Your task to perform on an android device: Turn on the flashlight Image 0: 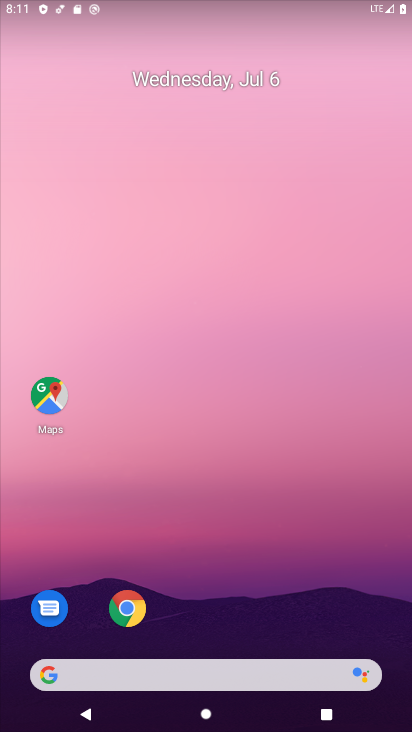
Step 0: drag from (376, 637) to (316, 35)
Your task to perform on an android device: Turn on the flashlight Image 1: 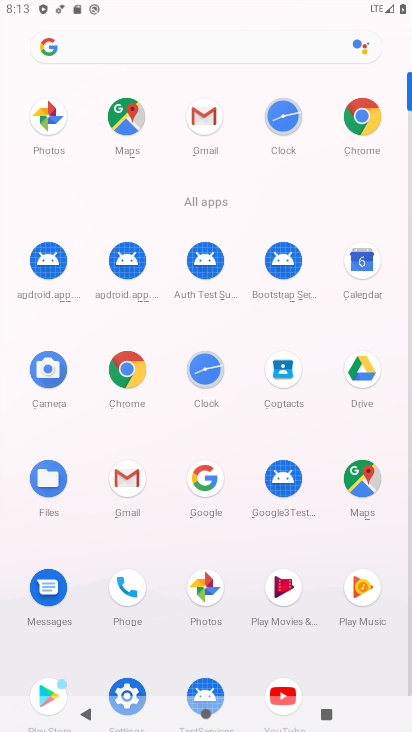
Step 1: click (131, 682)
Your task to perform on an android device: Turn on the flashlight Image 2: 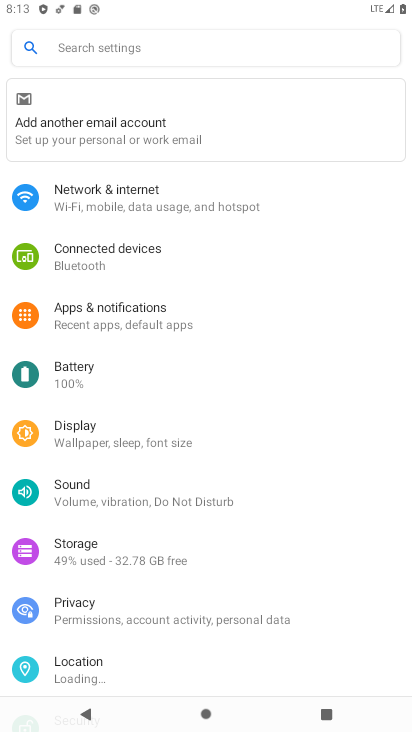
Step 2: task complete